Your task to perform on an android device: change notification settings in the gmail app Image 0: 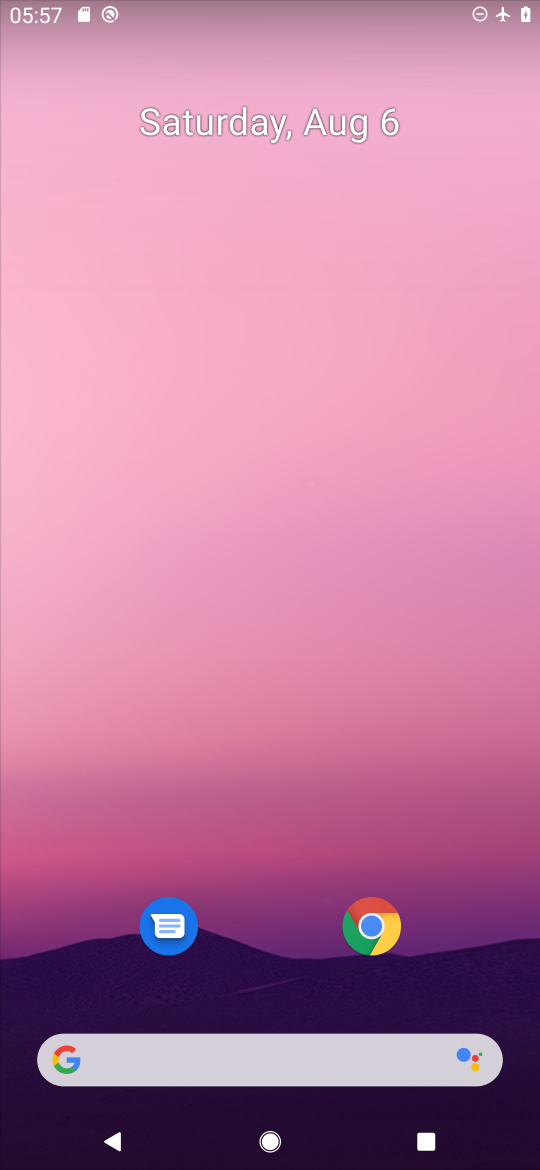
Step 0: drag from (289, 940) to (296, 201)
Your task to perform on an android device: change notification settings in the gmail app Image 1: 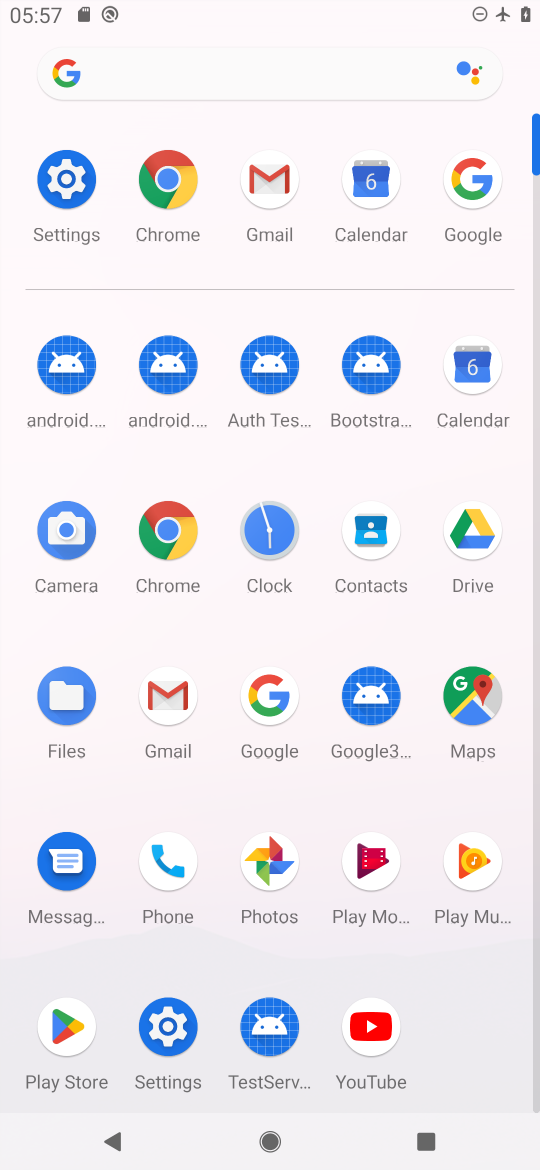
Step 1: click (265, 219)
Your task to perform on an android device: change notification settings in the gmail app Image 2: 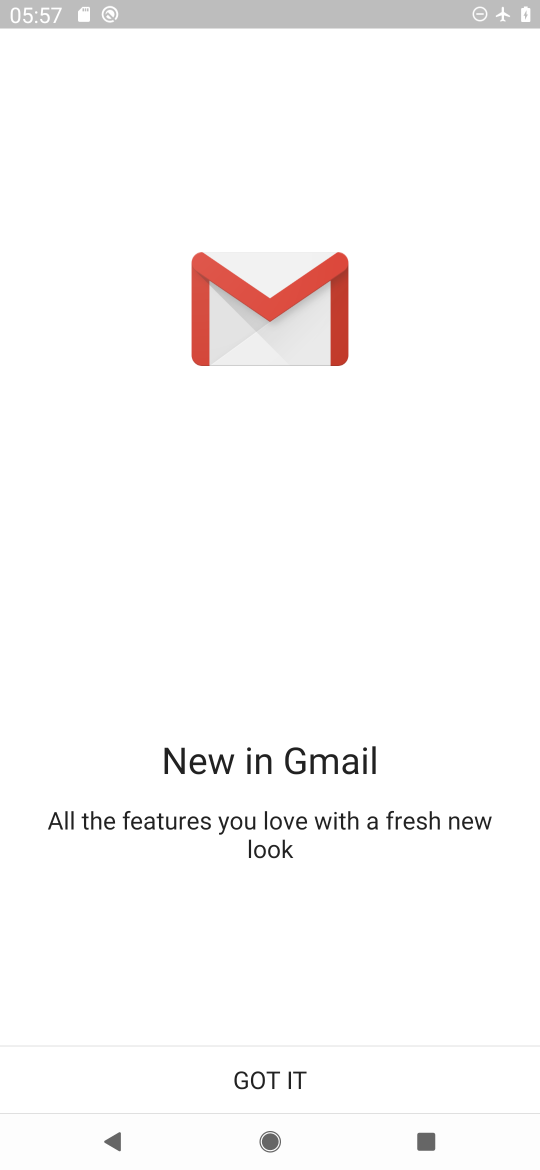
Step 2: click (335, 1079)
Your task to perform on an android device: change notification settings in the gmail app Image 3: 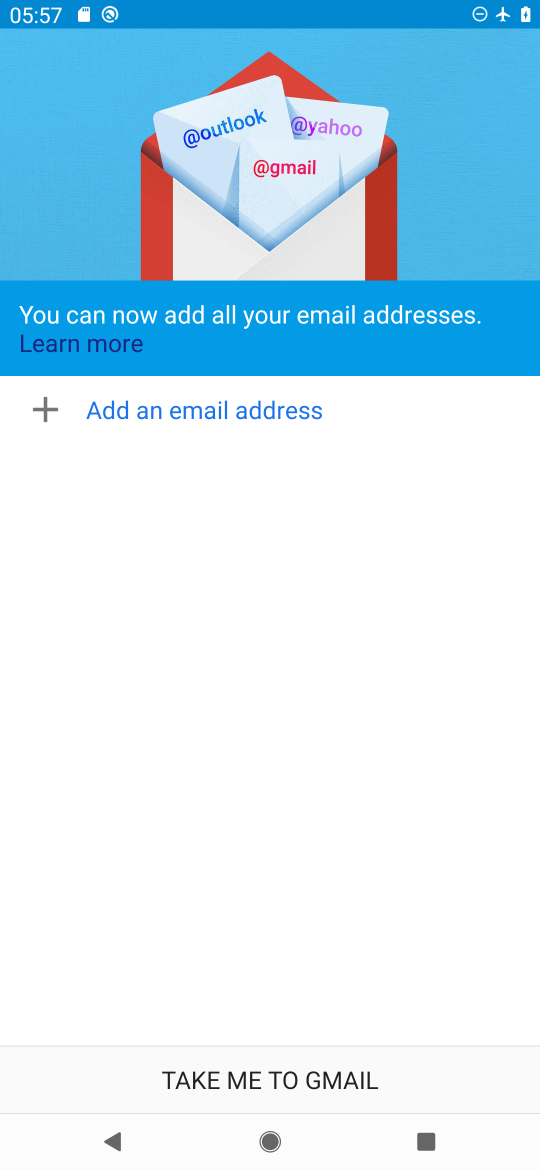
Step 3: click (335, 1061)
Your task to perform on an android device: change notification settings in the gmail app Image 4: 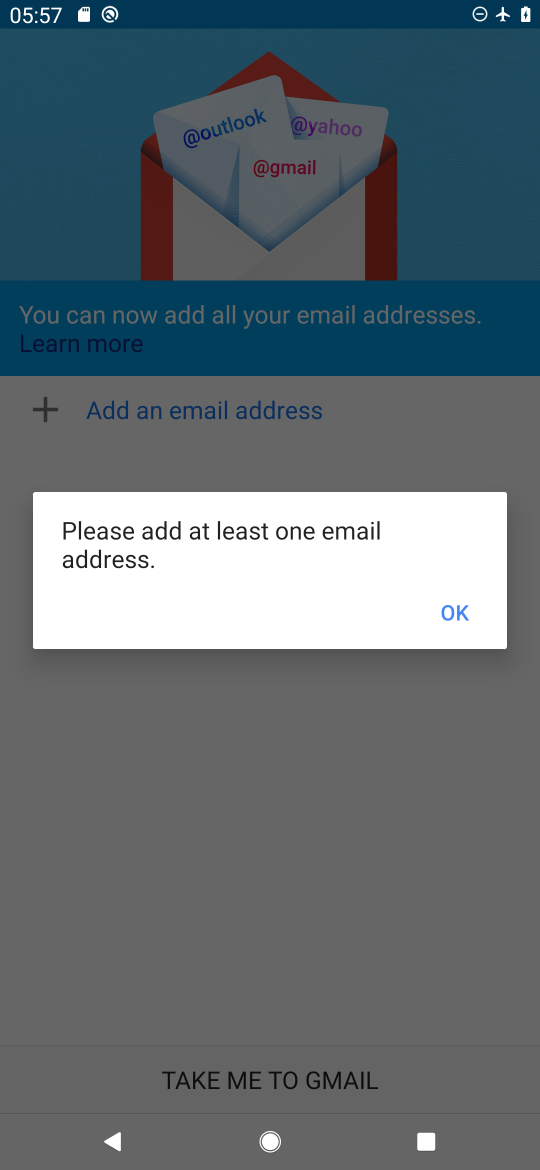
Step 4: task complete